Your task to perform on an android device: Go to location settings Image 0: 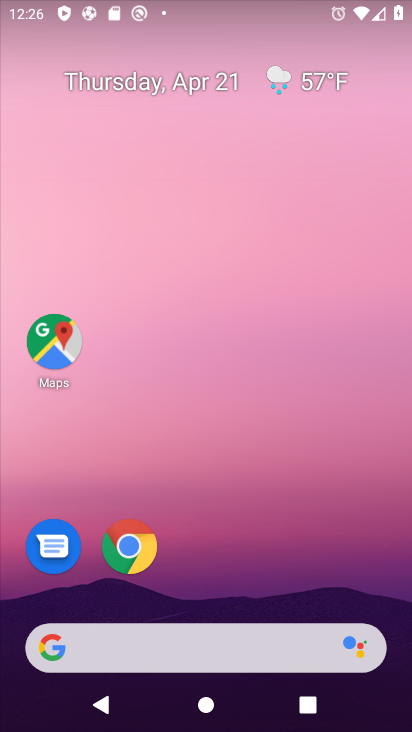
Step 0: drag from (289, 493) to (198, 61)
Your task to perform on an android device: Go to location settings Image 1: 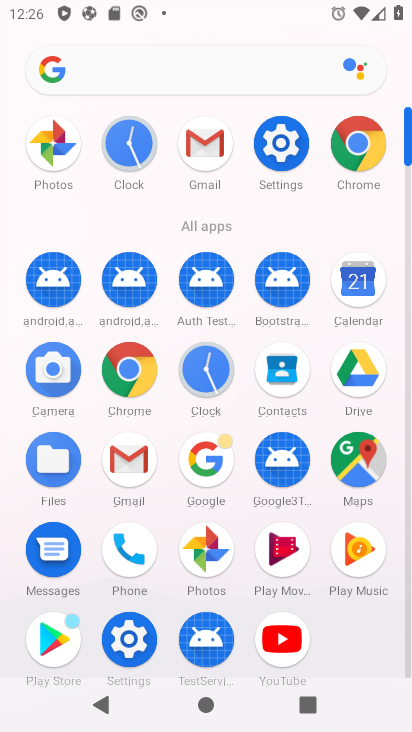
Step 1: click (280, 156)
Your task to perform on an android device: Go to location settings Image 2: 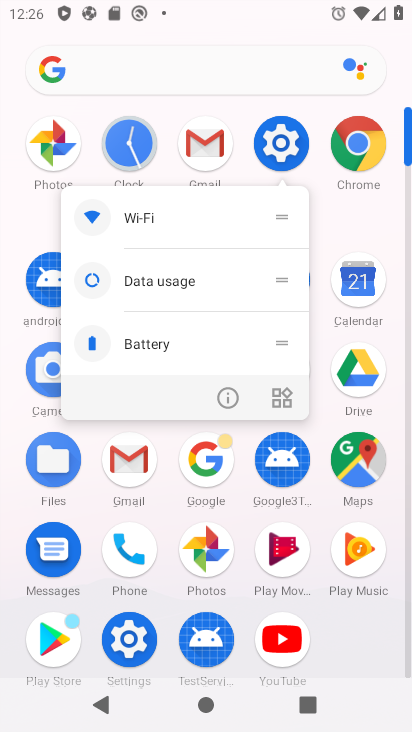
Step 2: click (297, 145)
Your task to perform on an android device: Go to location settings Image 3: 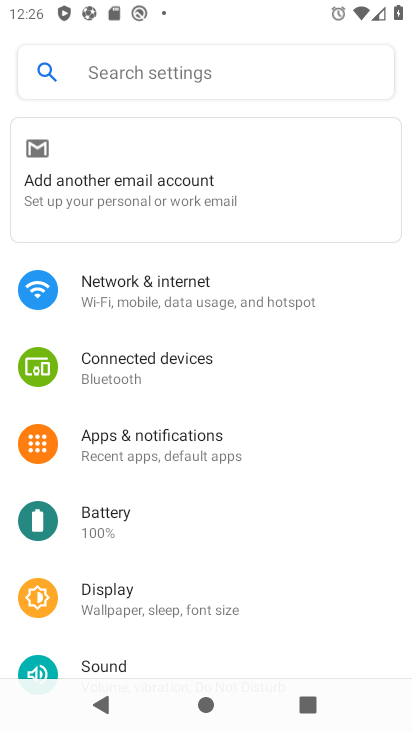
Step 3: drag from (233, 590) to (198, 284)
Your task to perform on an android device: Go to location settings Image 4: 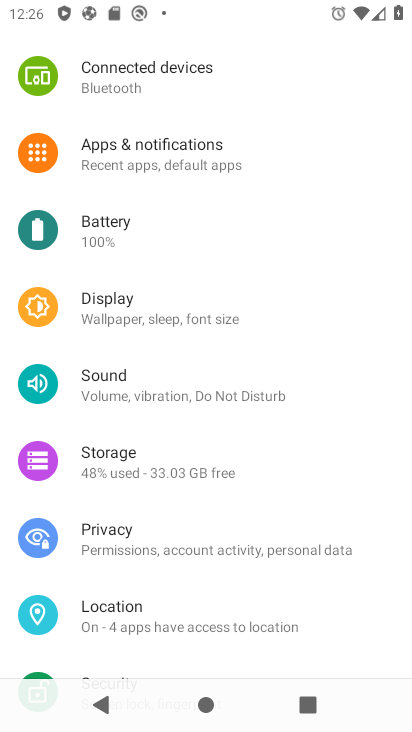
Step 4: click (165, 613)
Your task to perform on an android device: Go to location settings Image 5: 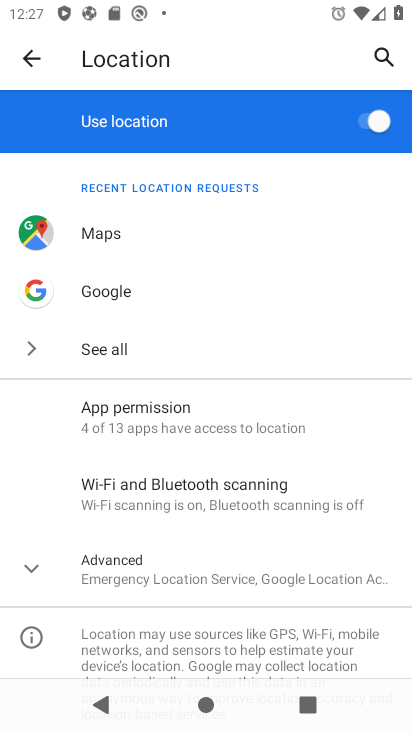
Step 5: task complete